Your task to perform on an android device: Open settings Image 0: 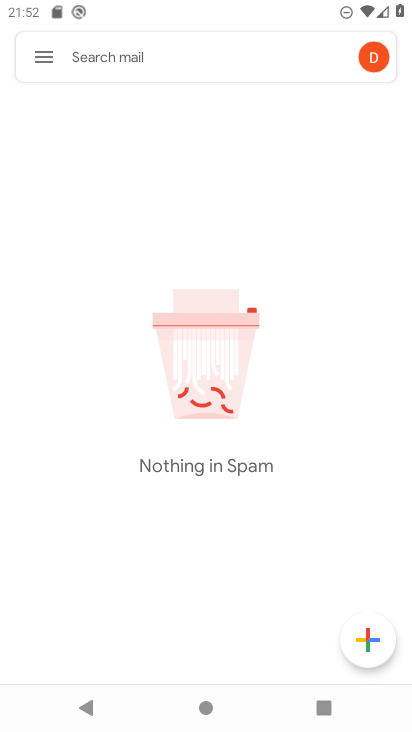
Step 0: press home button
Your task to perform on an android device: Open settings Image 1: 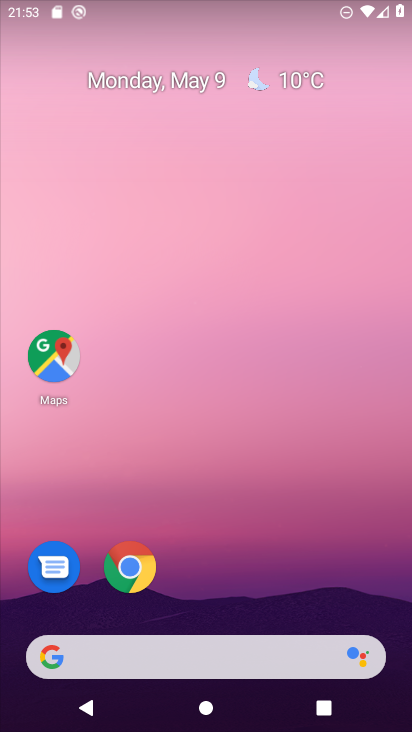
Step 1: drag from (246, 485) to (237, 46)
Your task to perform on an android device: Open settings Image 2: 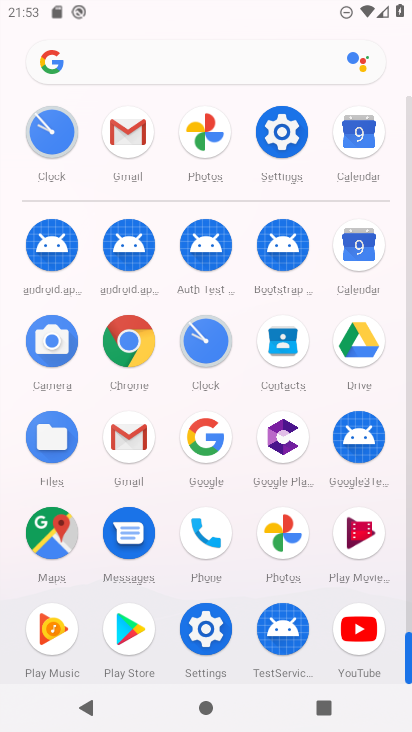
Step 2: click (268, 124)
Your task to perform on an android device: Open settings Image 3: 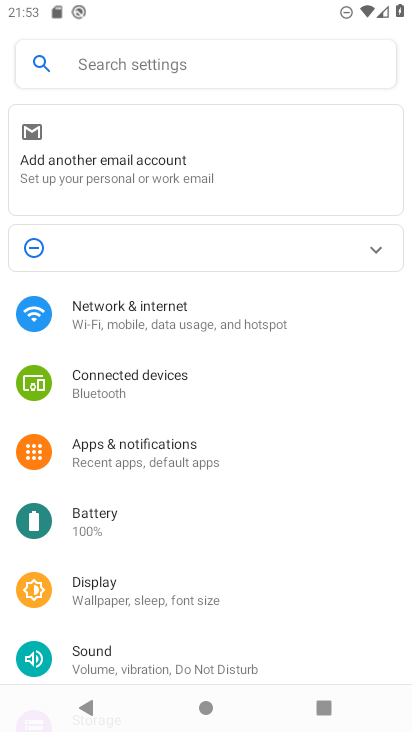
Step 3: task complete